Your task to perform on an android device: Go to Google maps Image 0: 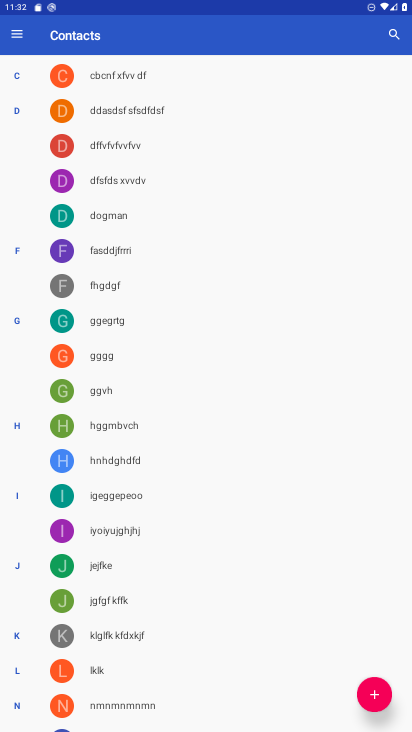
Step 0: press home button
Your task to perform on an android device: Go to Google maps Image 1: 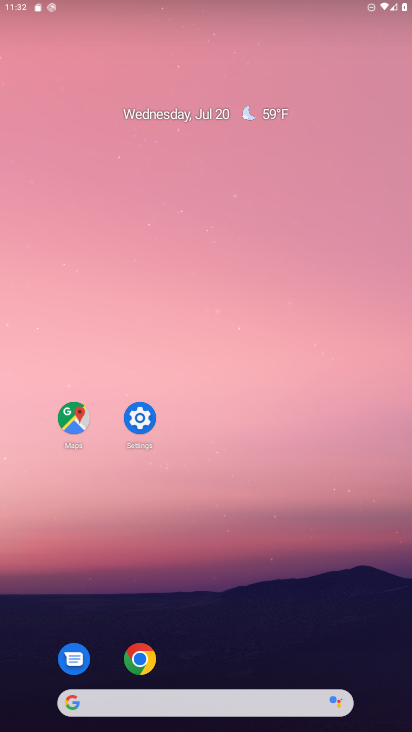
Step 1: click (62, 415)
Your task to perform on an android device: Go to Google maps Image 2: 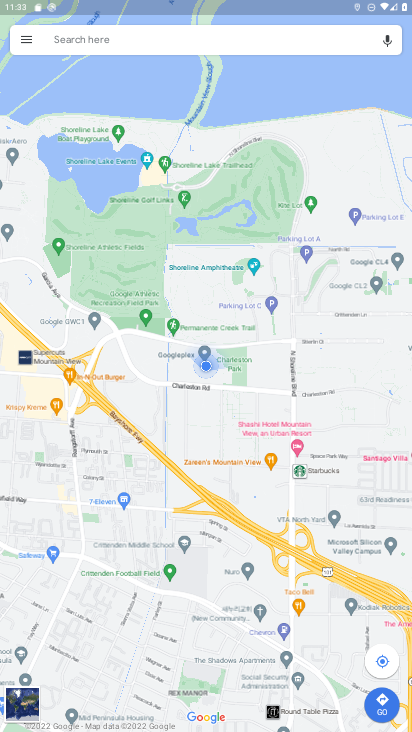
Step 2: task complete